Your task to perform on an android device: open app "Skype" (install if not already installed) and go to login screen Image 0: 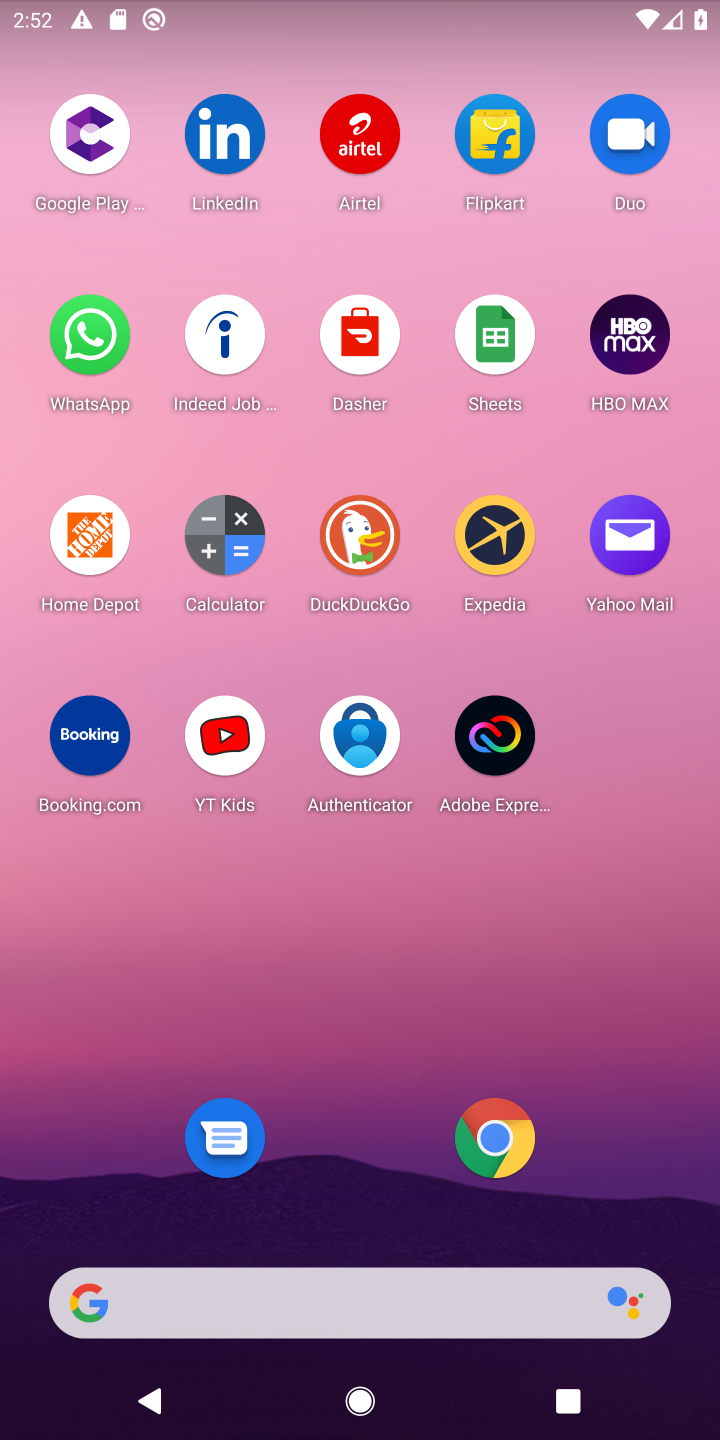
Step 0: drag from (362, 1234) to (455, 214)
Your task to perform on an android device: open app "Skype" (install if not already installed) and go to login screen Image 1: 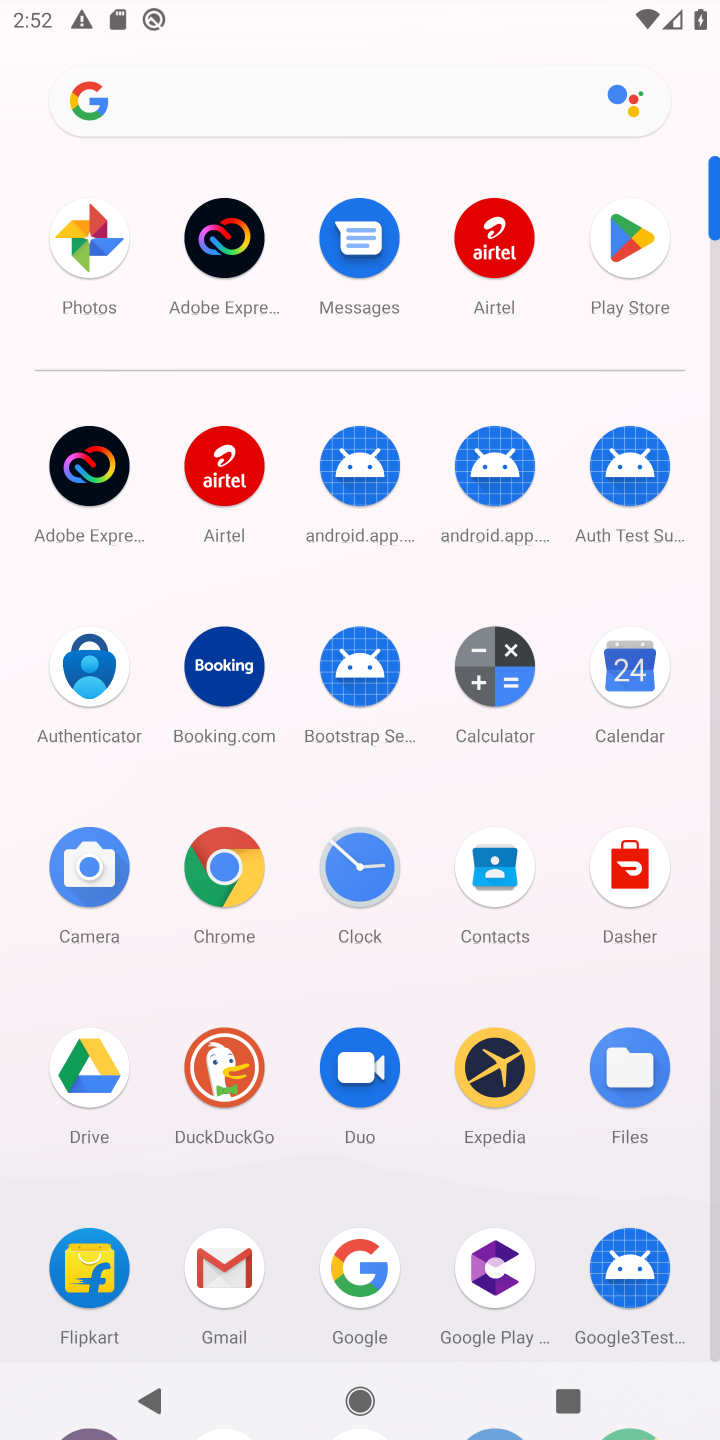
Step 1: click (616, 238)
Your task to perform on an android device: open app "Skype" (install if not already installed) and go to login screen Image 2: 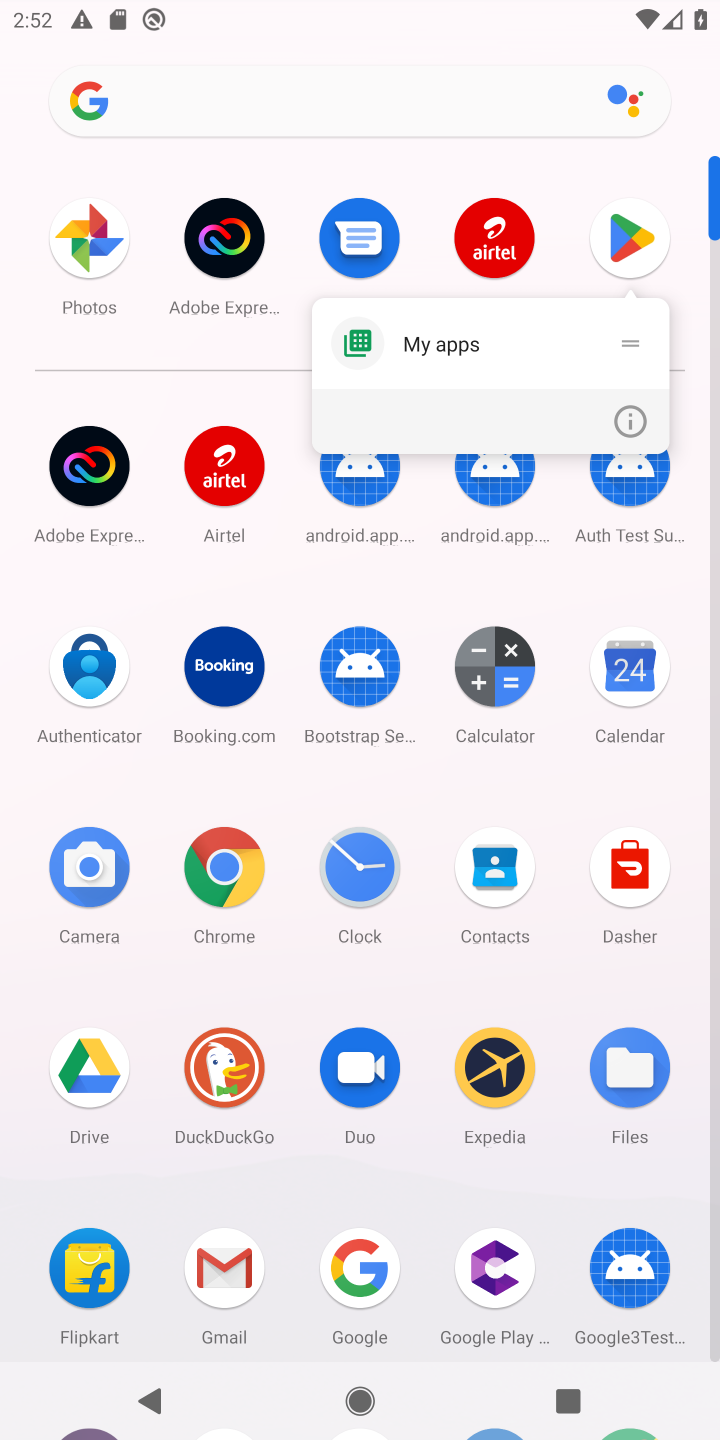
Step 2: click (635, 234)
Your task to perform on an android device: open app "Skype" (install if not already installed) and go to login screen Image 3: 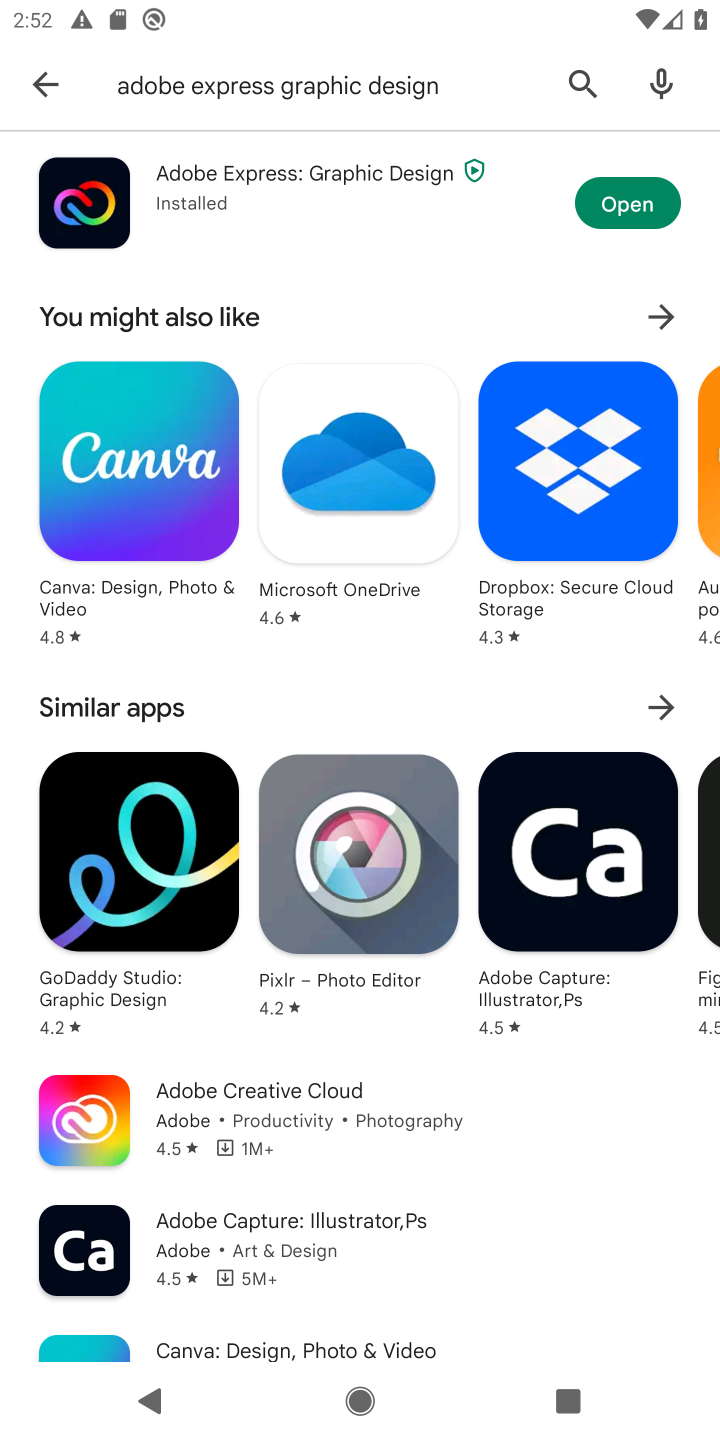
Step 3: click (575, 75)
Your task to perform on an android device: open app "Skype" (install if not already installed) and go to login screen Image 4: 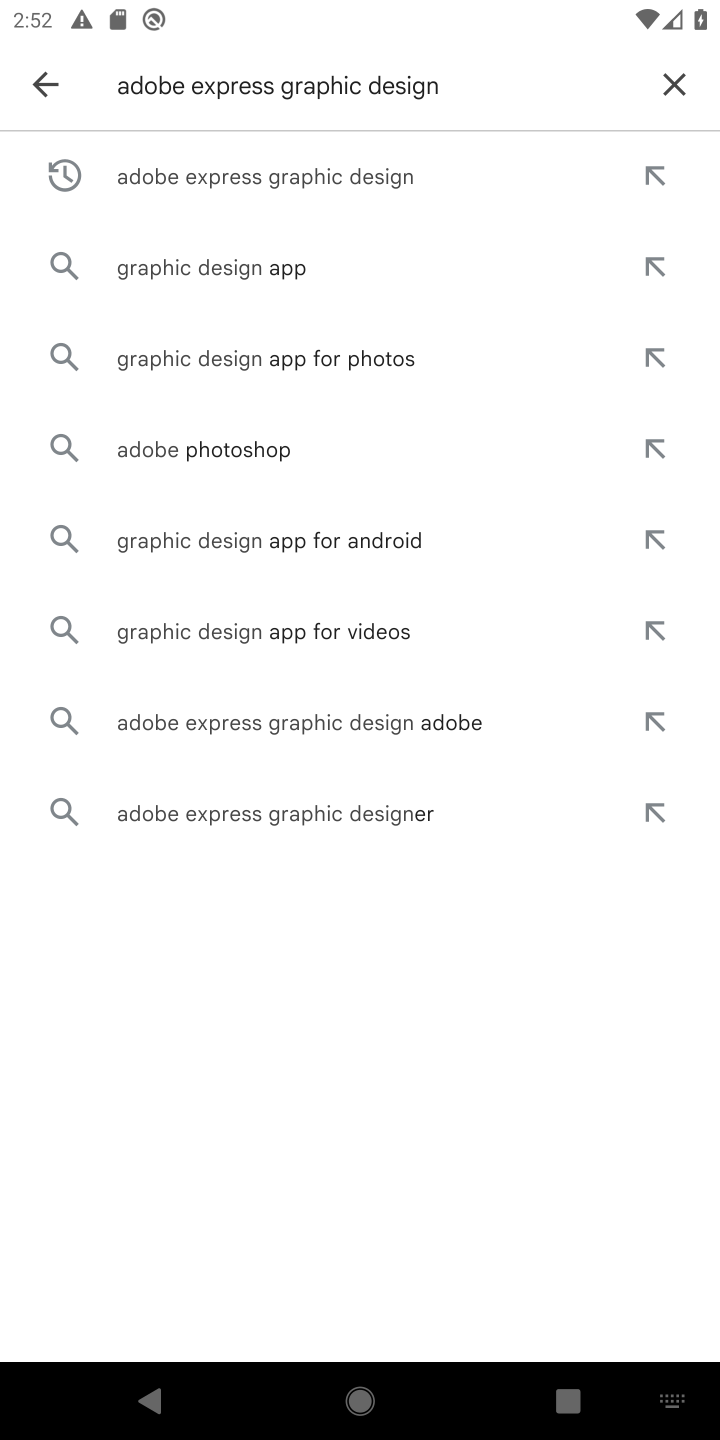
Step 4: click (669, 78)
Your task to perform on an android device: open app "Skype" (install if not already installed) and go to login screen Image 5: 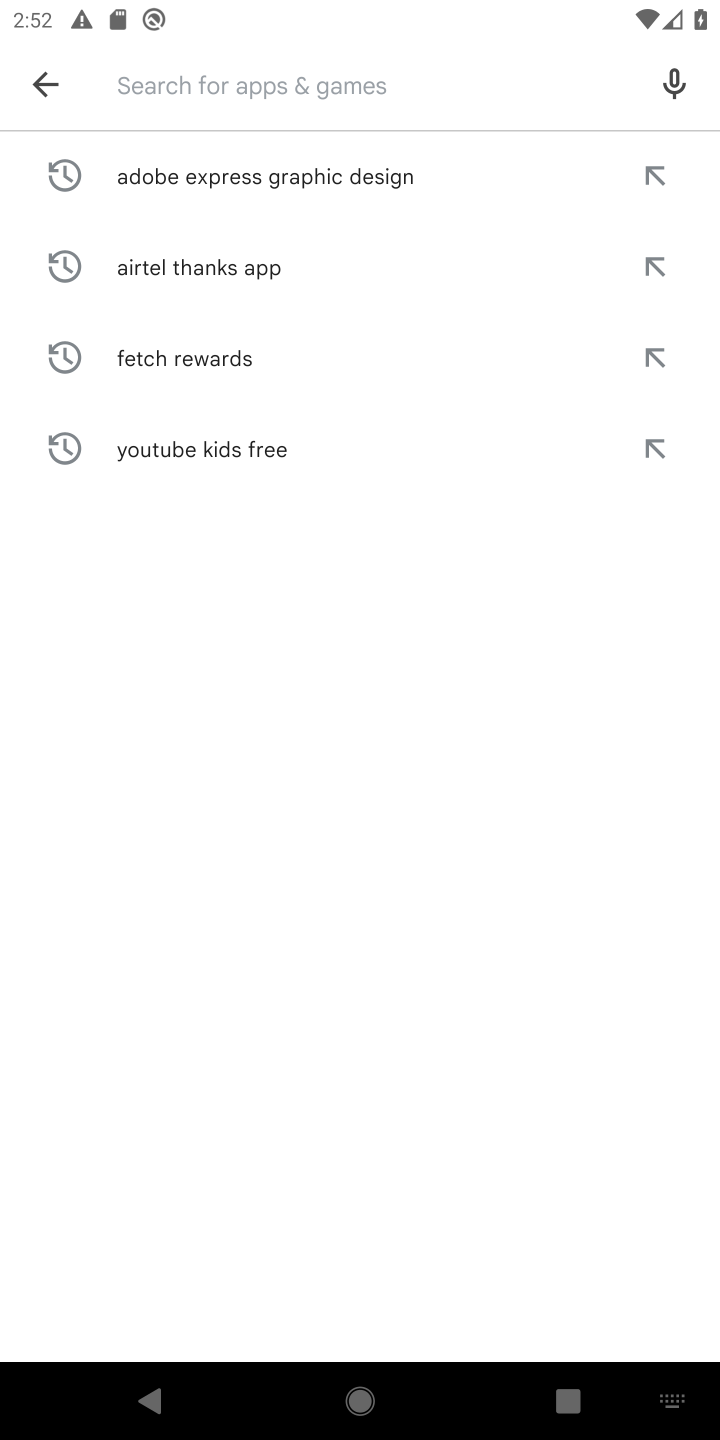
Step 5: type "Skype"
Your task to perform on an android device: open app "Skype" (install if not already installed) and go to login screen Image 6: 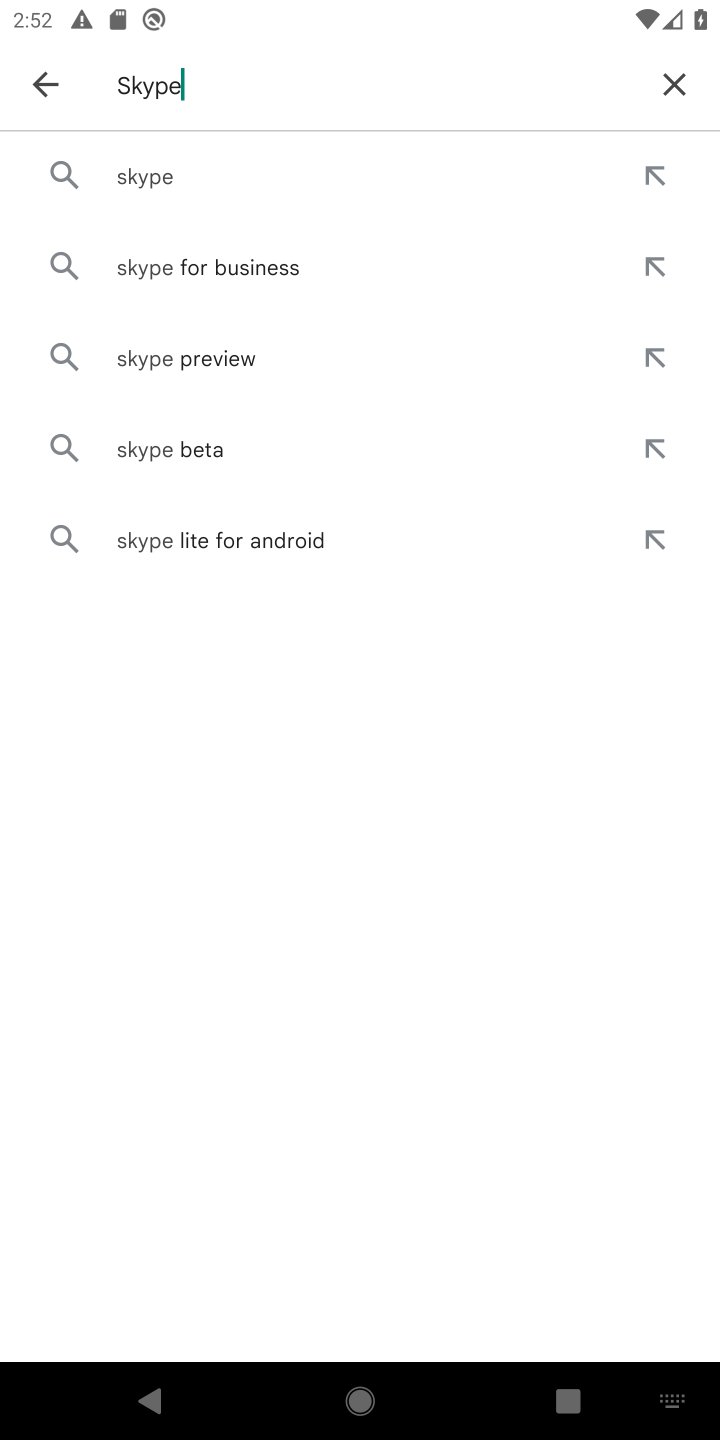
Step 6: click (156, 170)
Your task to perform on an android device: open app "Skype" (install if not already installed) and go to login screen Image 7: 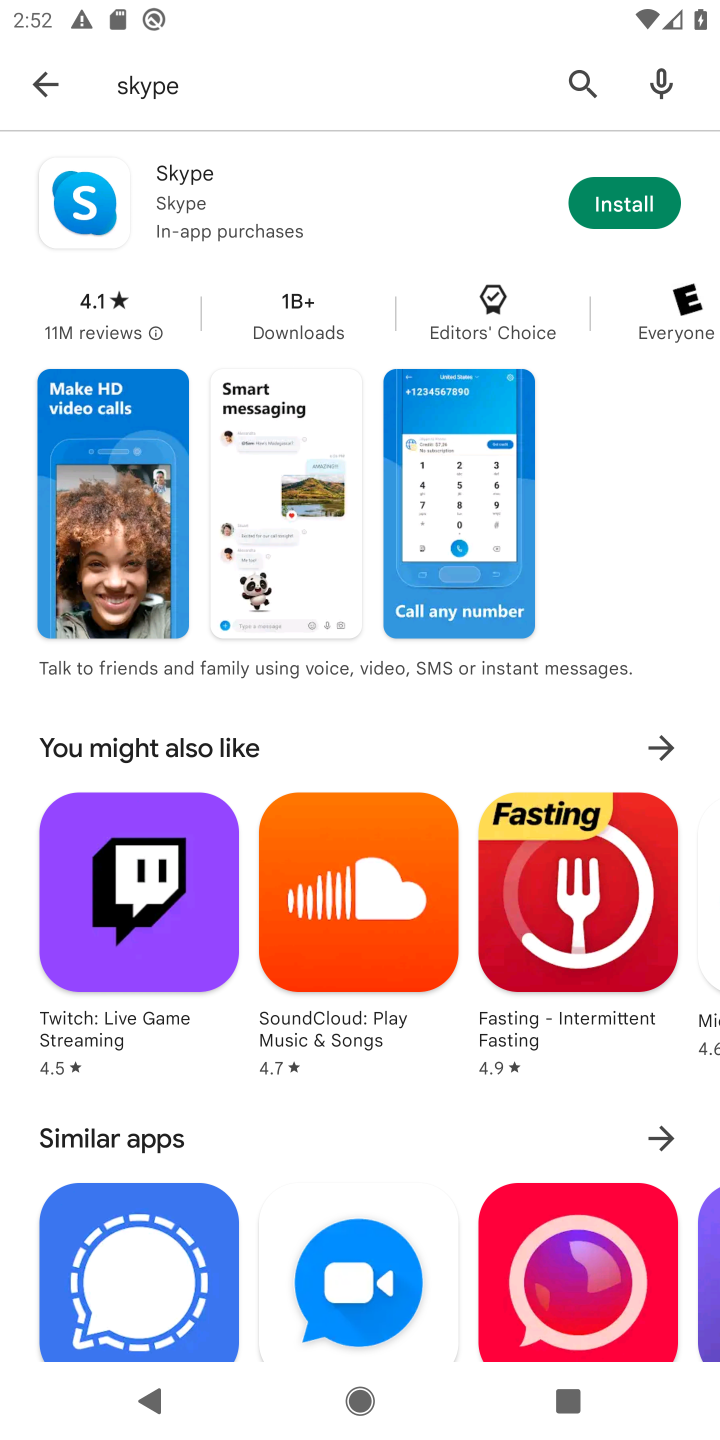
Step 7: click (650, 211)
Your task to perform on an android device: open app "Skype" (install if not already installed) and go to login screen Image 8: 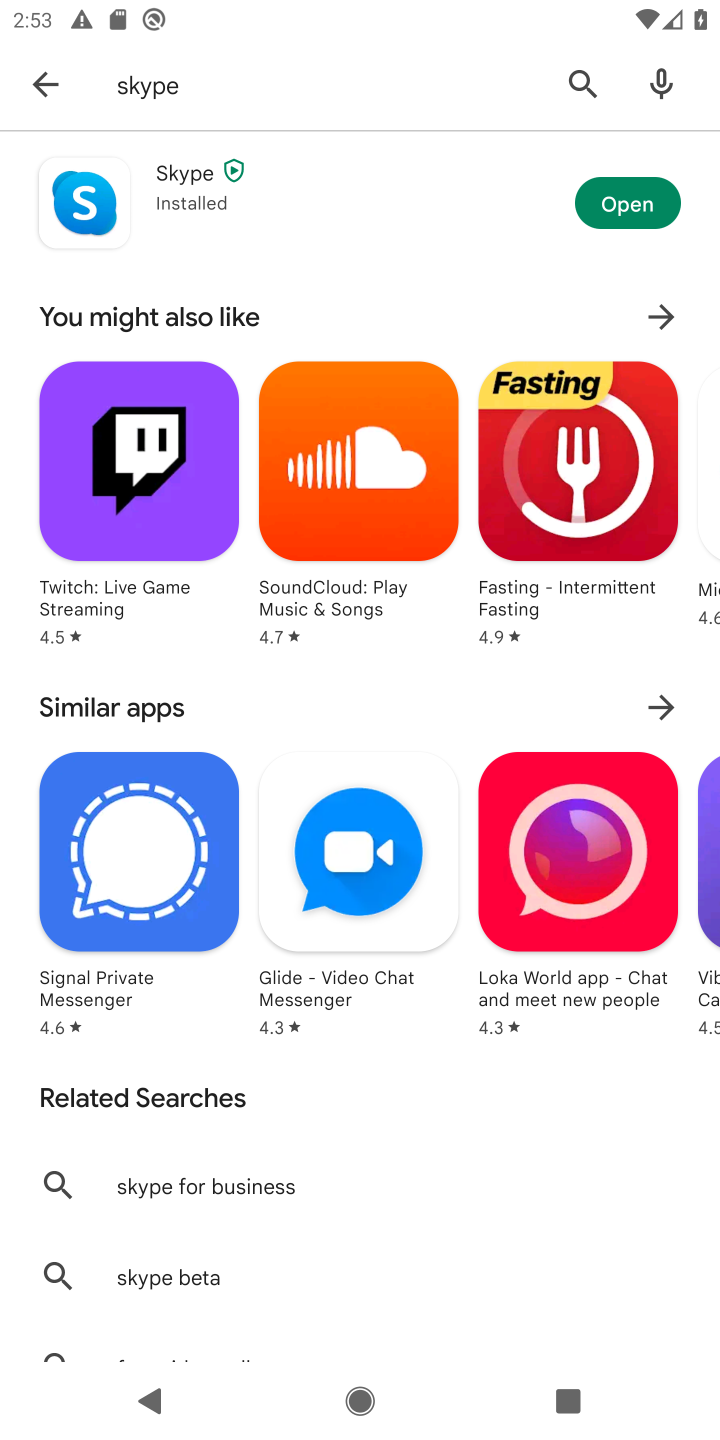
Step 8: click (625, 209)
Your task to perform on an android device: open app "Skype" (install if not already installed) and go to login screen Image 9: 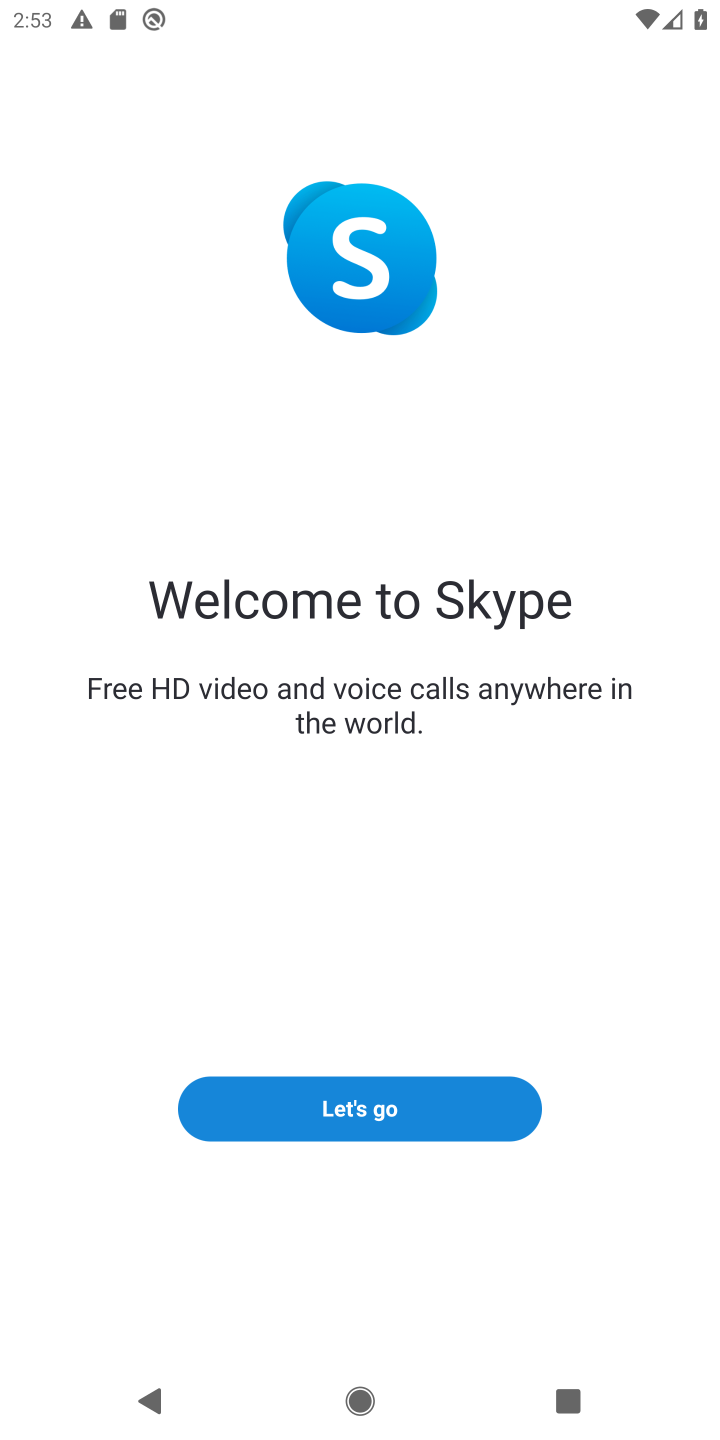
Step 9: click (354, 1116)
Your task to perform on an android device: open app "Skype" (install if not already installed) and go to login screen Image 10: 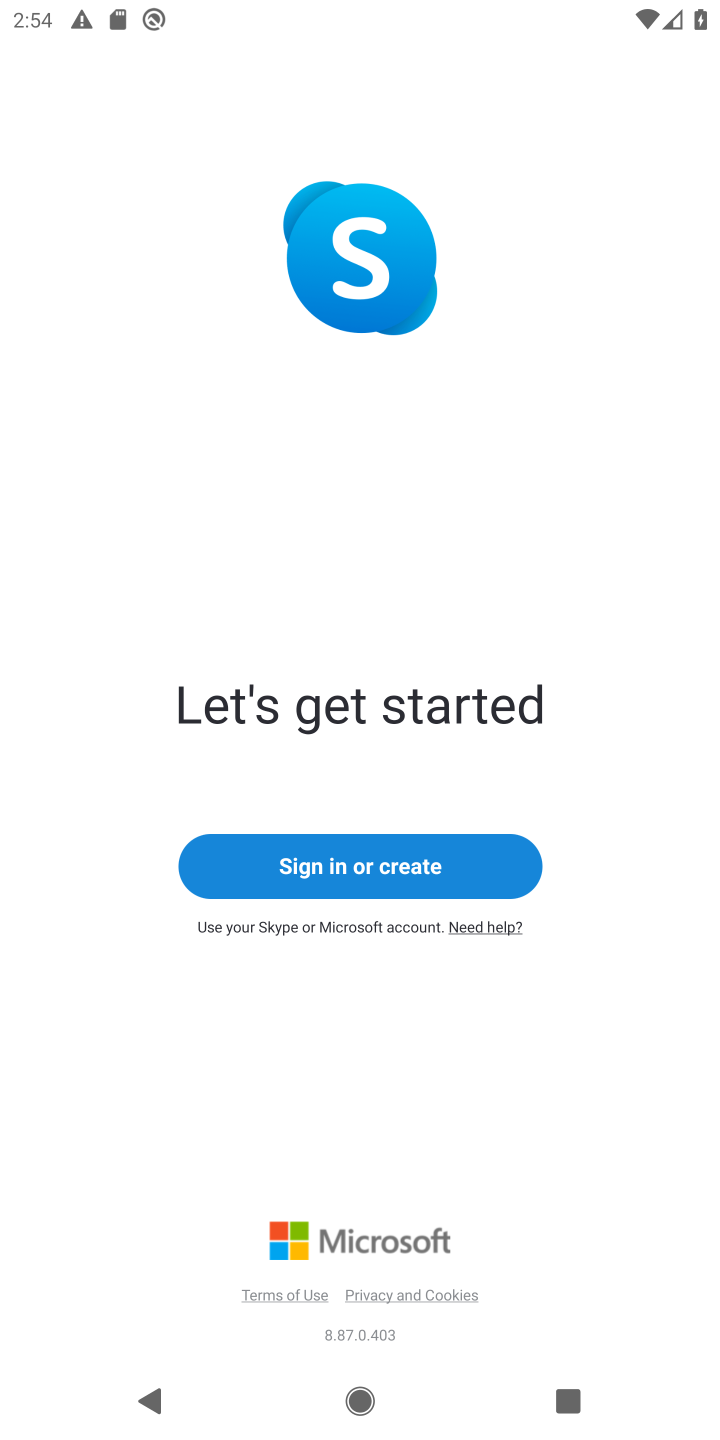
Step 10: task complete